Your task to perform on an android device: set the stopwatch Image 0: 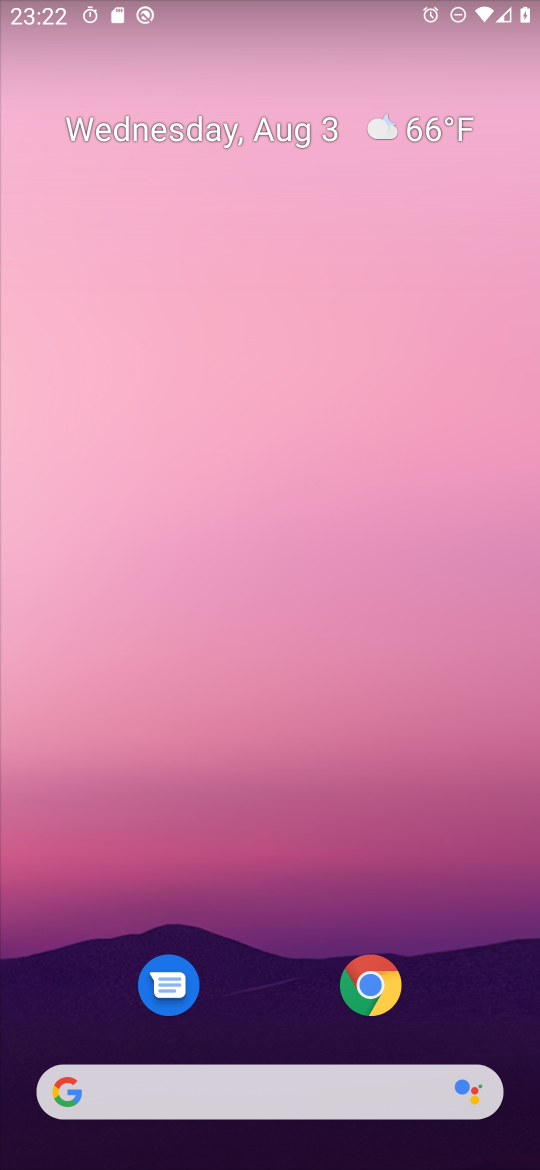
Step 0: drag from (244, 865) to (244, 303)
Your task to perform on an android device: set the stopwatch Image 1: 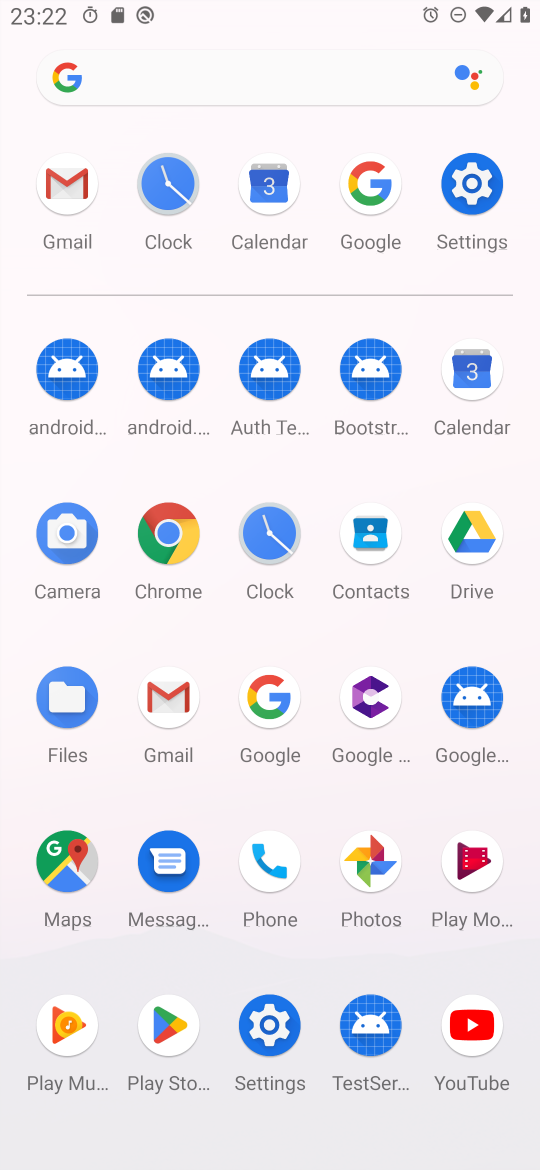
Step 1: click (278, 565)
Your task to perform on an android device: set the stopwatch Image 2: 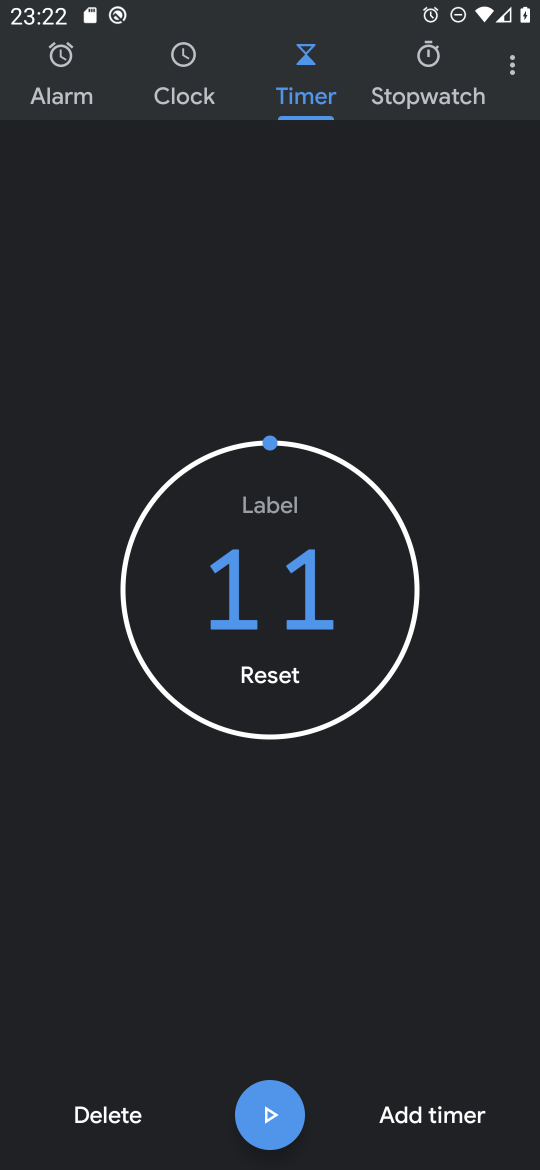
Step 2: click (447, 69)
Your task to perform on an android device: set the stopwatch Image 3: 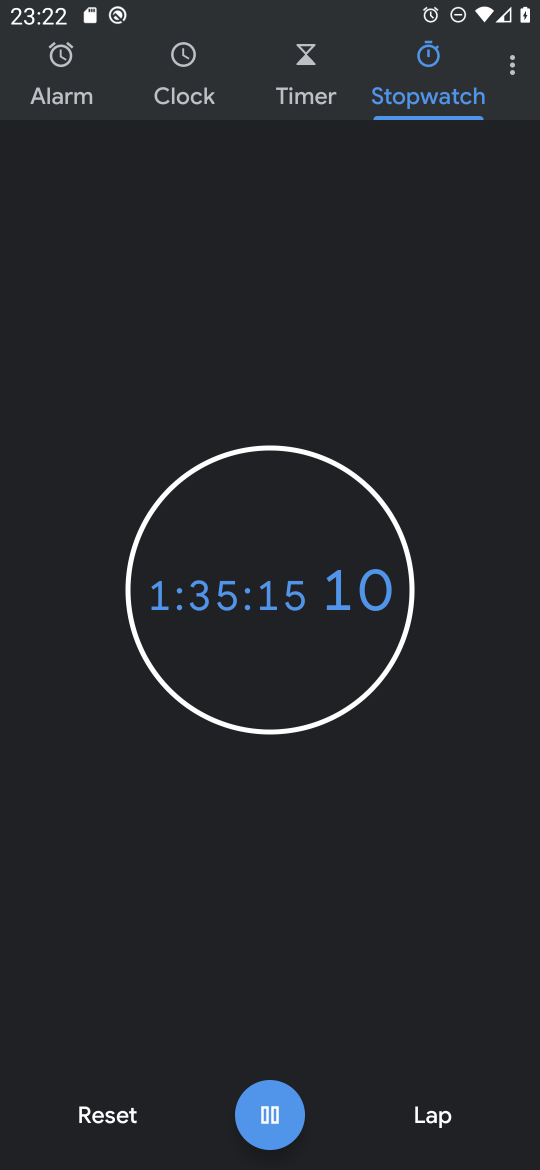
Step 3: task complete